Your task to perform on an android device: toggle location history Image 0: 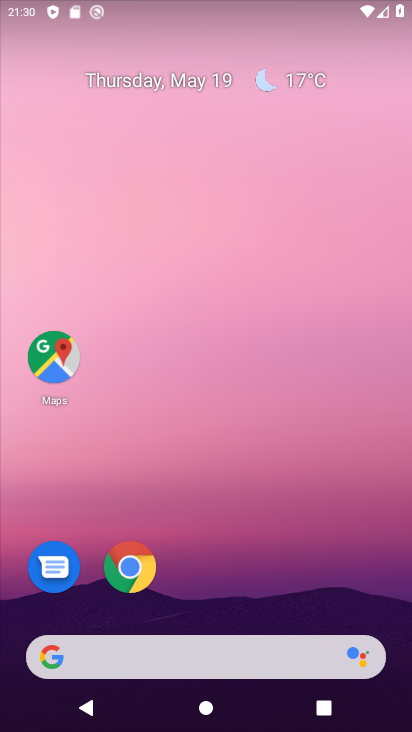
Step 0: drag from (362, 613) to (306, 45)
Your task to perform on an android device: toggle location history Image 1: 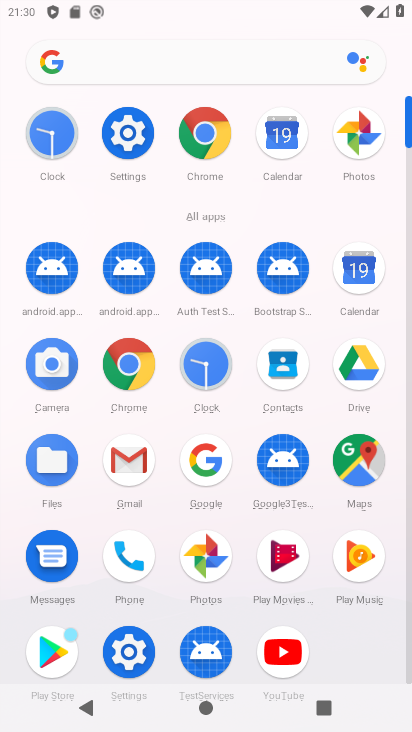
Step 1: click (128, 633)
Your task to perform on an android device: toggle location history Image 2: 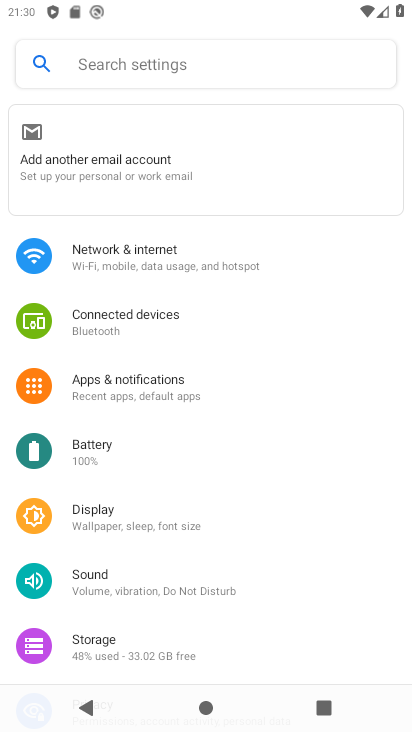
Step 2: drag from (223, 562) to (218, 246)
Your task to perform on an android device: toggle location history Image 3: 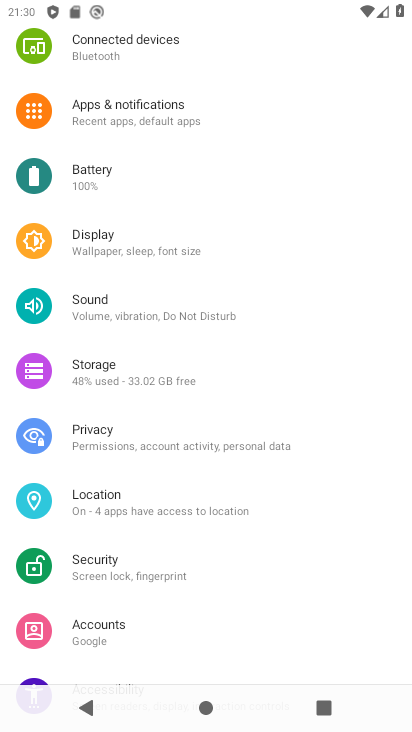
Step 3: click (197, 510)
Your task to perform on an android device: toggle location history Image 4: 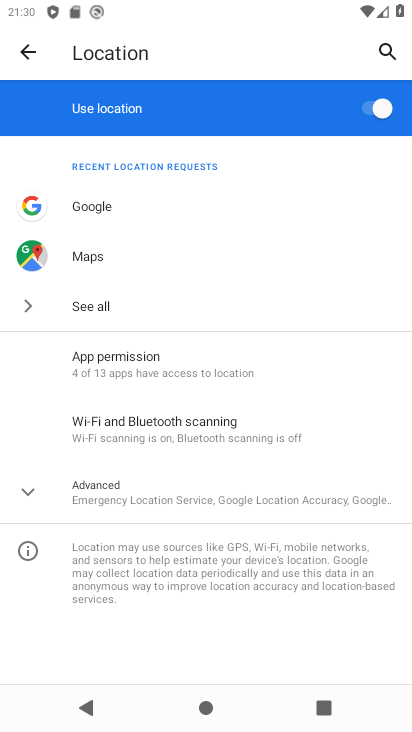
Step 4: click (198, 485)
Your task to perform on an android device: toggle location history Image 5: 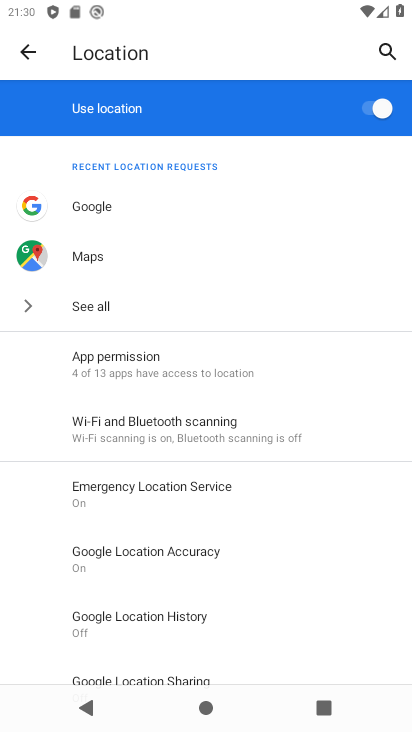
Step 5: click (203, 615)
Your task to perform on an android device: toggle location history Image 6: 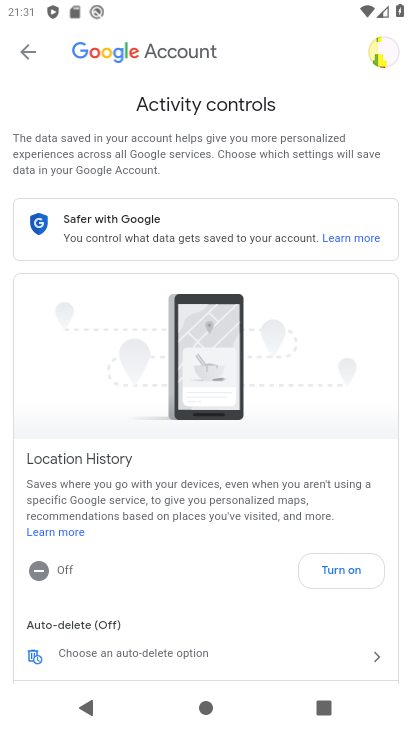
Step 6: click (340, 562)
Your task to perform on an android device: toggle location history Image 7: 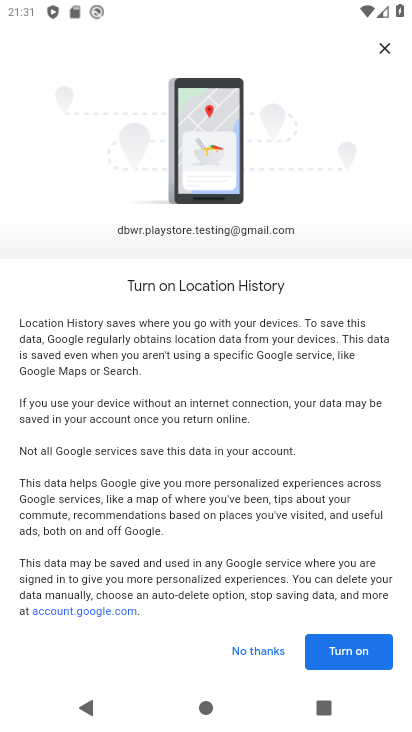
Step 7: click (353, 649)
Your task to perform on an android device: toggle location history Image 8: 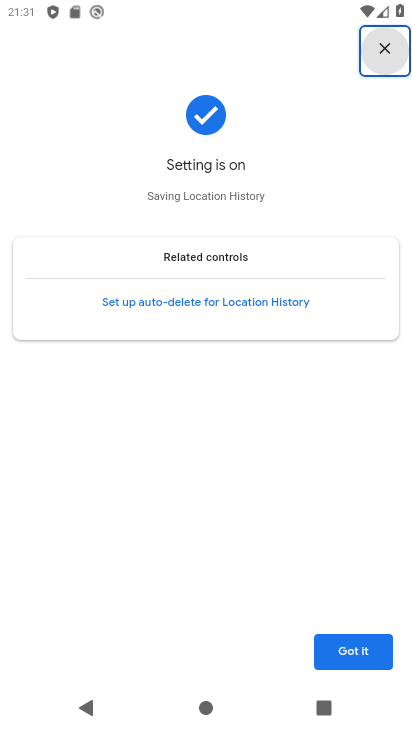
Step 8: task complete